Your task to perform on an android device: Open ESPN.com Image 0: 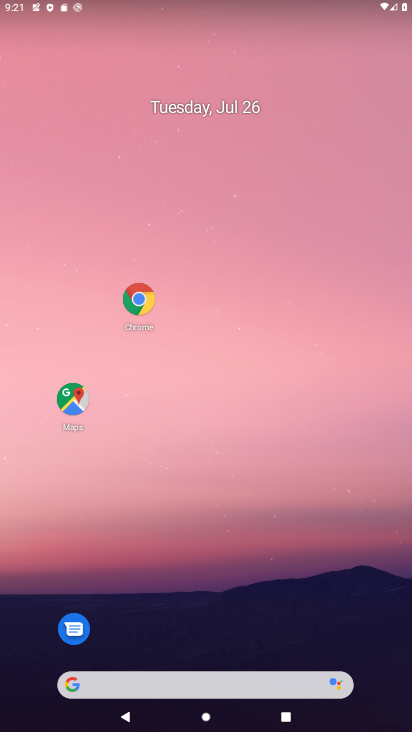
Step 0: press back button
Your task to perform on an android device: Open ESPN.com Image 1: 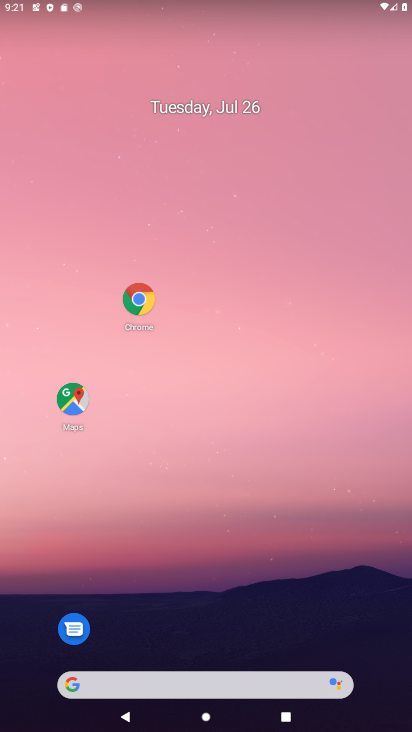
Step 1: click (173, 114)
Your task to perform on an android device: Open ESPN.com Image 2: 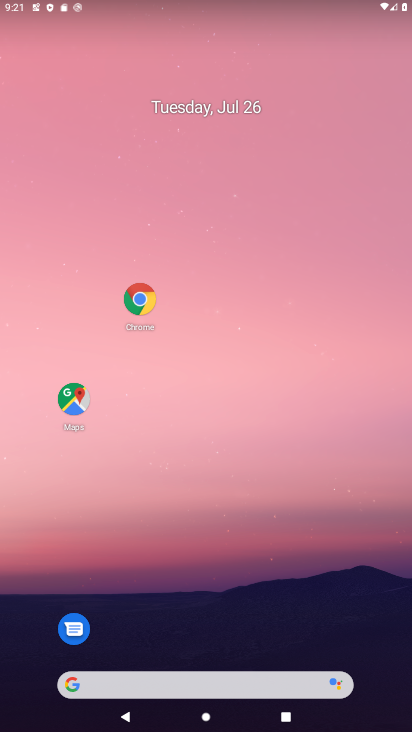
Step 2: drag from (133, 366) to (130, 179)
Your task to perform on an android device: Open ESPN.com Image 3: 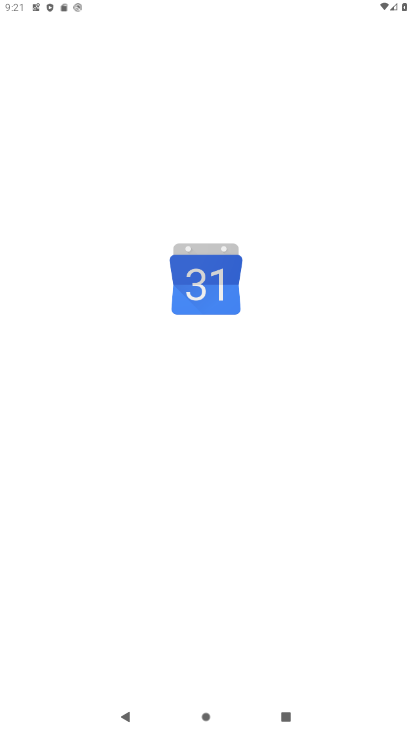
Step 3: drag from (268, 667) to (223, 116)
Your task to perform on an android device: Open ESPN.com Image 4: 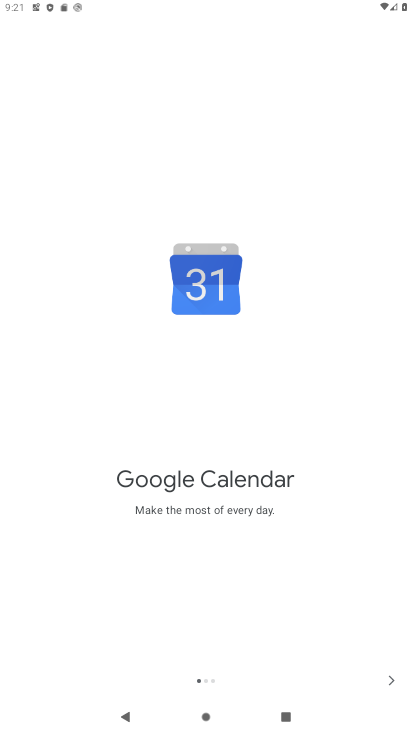
Step 4: press back button
Your task to perform on an android device: Open ESPN.com Image 5: 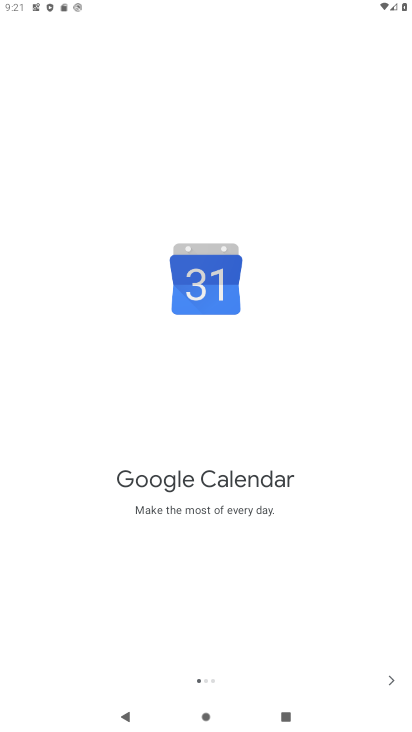
Step 5: press back button
Your task to perform on an android device: Open ESPN.com Image 6: 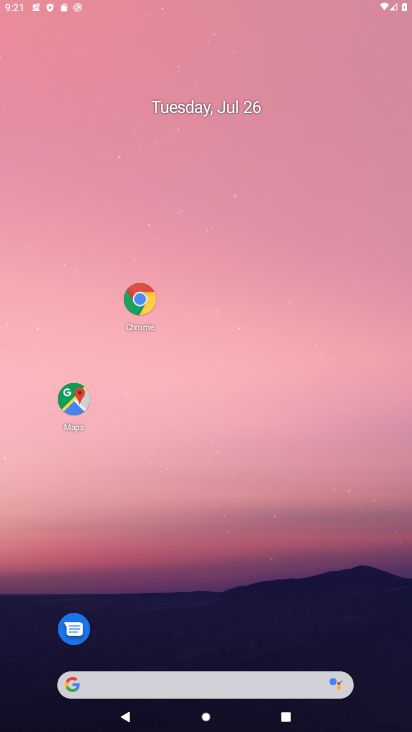
Step 6: press back button
Your task to perform on an android device: Open ESPN.com Image 7: 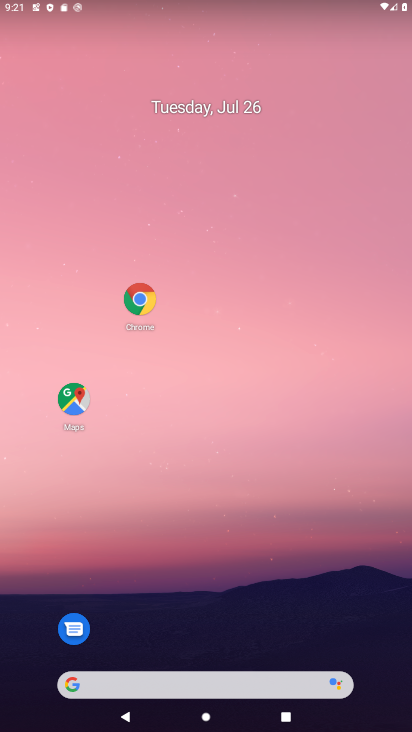
Step 7: drag from (207, 304) to (174, 142)
Your task to perform on an android device: Open ESPN.com Image 8: 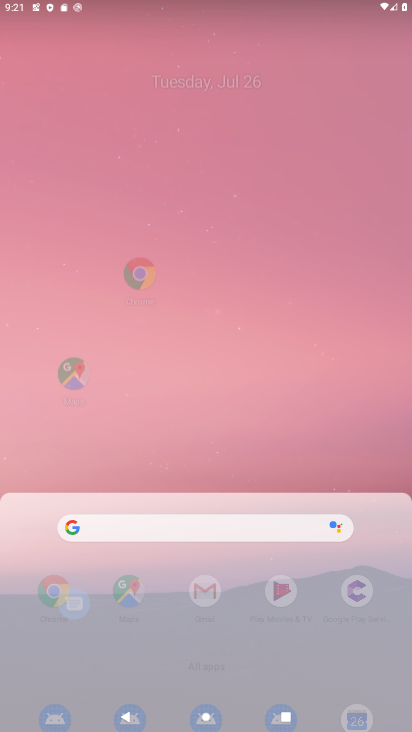
Step 8: drag from (146, 137) to (140, 100)
Your task to perform on an android device: Open ESPN.com Image 9: 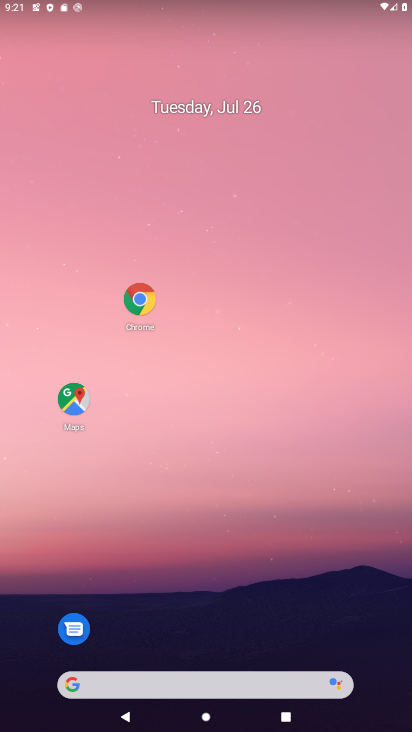
Step 9: drag from (203, 488) to (119, 102)
Your task to perform on an android device: Open ESPN.com Image 10: 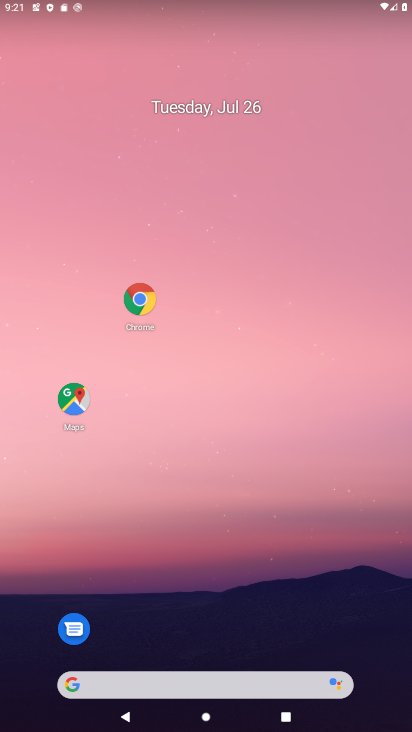
Step 10: drag from (181, 10) to (203, 75)
Your task to perform on an android device: Open ESPN.com Image 11: 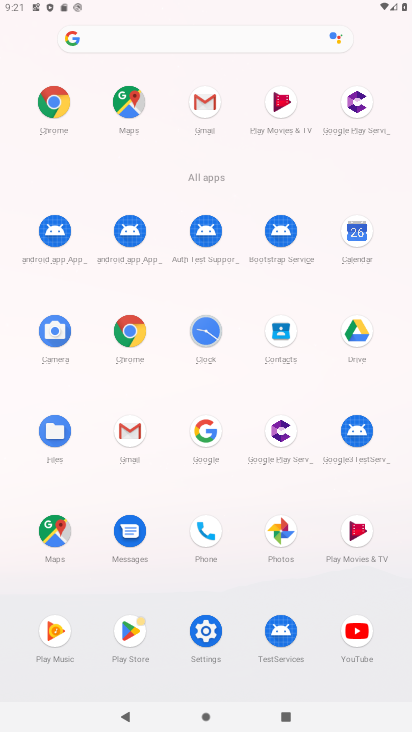
Step 11: click (345, 344)
Your task to perform on an android device: Open ESPN.com Image 12: 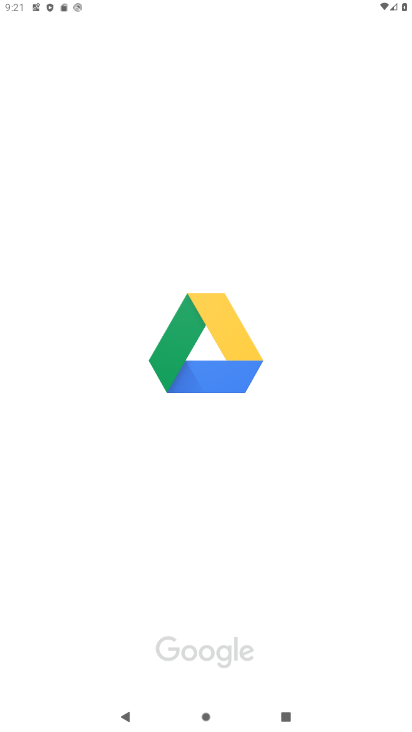
Step 12: click (131, 340)
Your task to perform on an android device: Open ESPN.com Image 13: 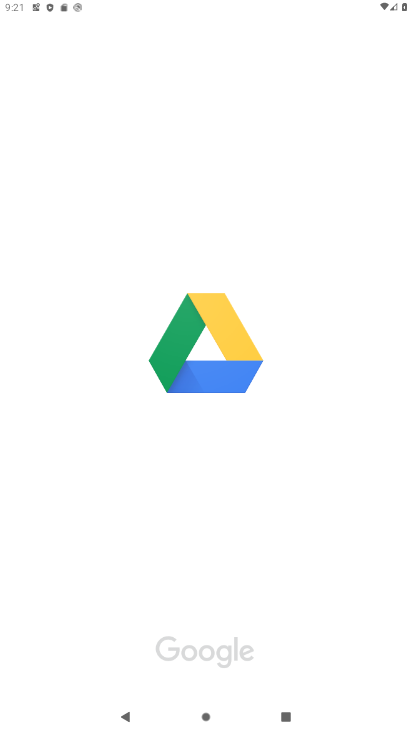
Step 13: click (131, 340)
Your task to perform on an android device: Open ESPN.com Image 14: 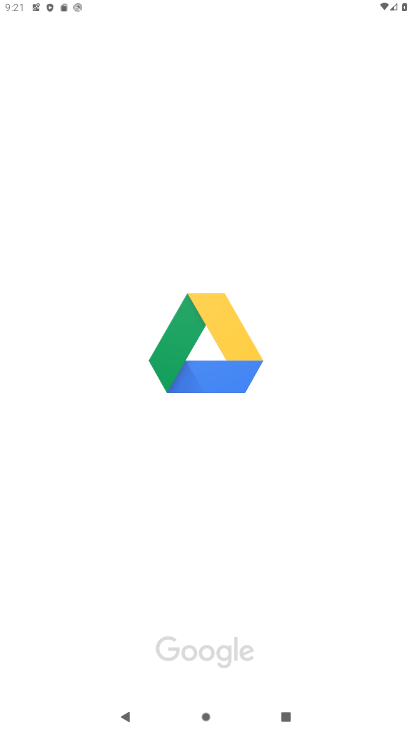
Step 14: press back button
Your task to perform on an android device: Open ESPN.com Image 15: 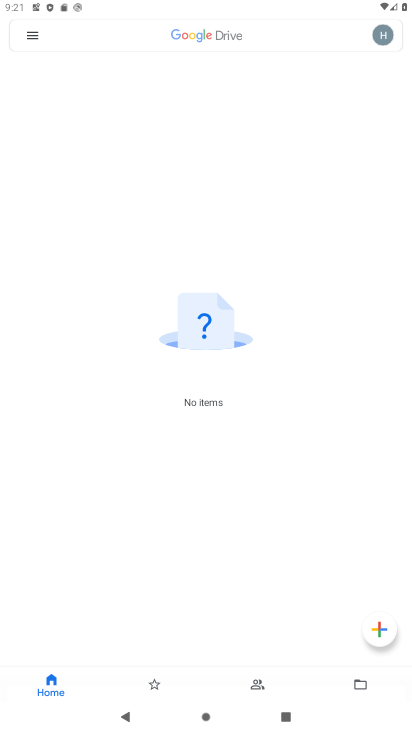
Step 15: press back button
Your task to perform on an android device: Open ESPN.com Image 16: 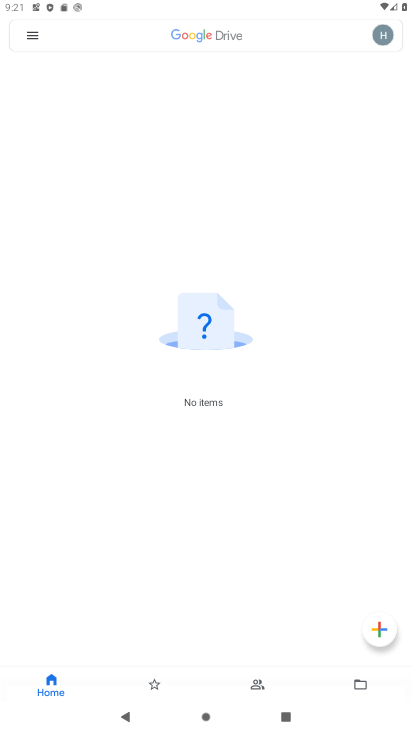
Step 16: click (54, 104)
Your task to perform on an android device: Open ESPN.com Image 17: 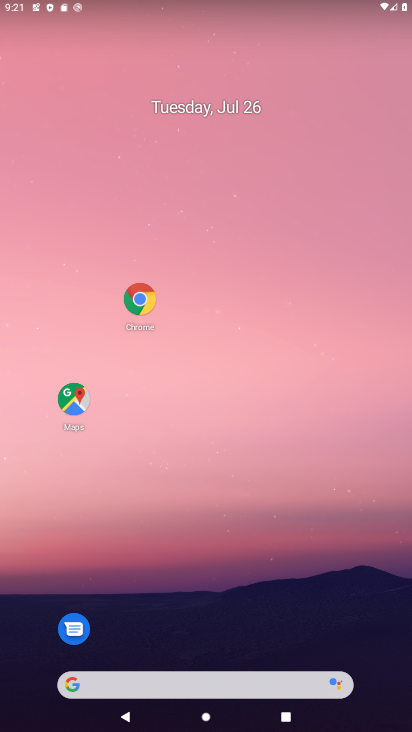
Step 17: press back button
Your task to perform on an android device: Open ESPN.com Image 18: 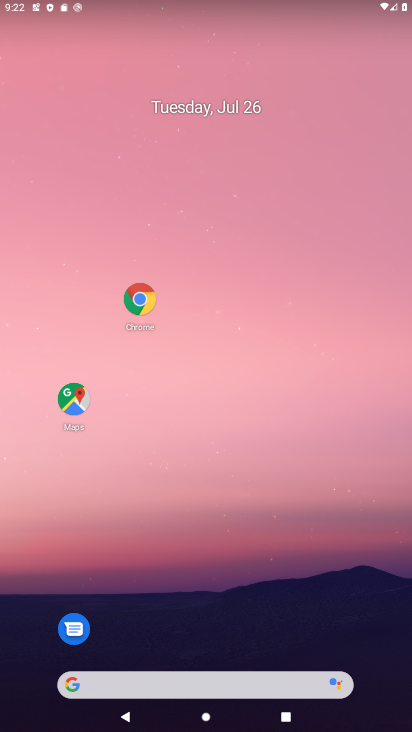
Step 18: click (171, 318)
Your task to perform on an android device: Open ESPN.com Image 19: 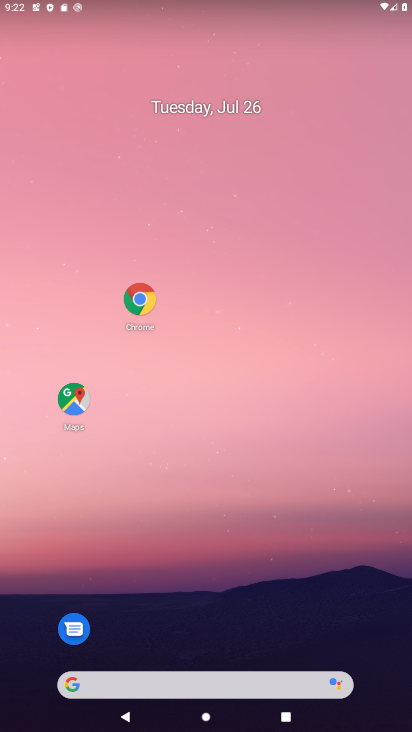
Step 19: drag from (223, 254) to (223, 119)
Your task to perform on an android device: Open ESPN.com Image 20: 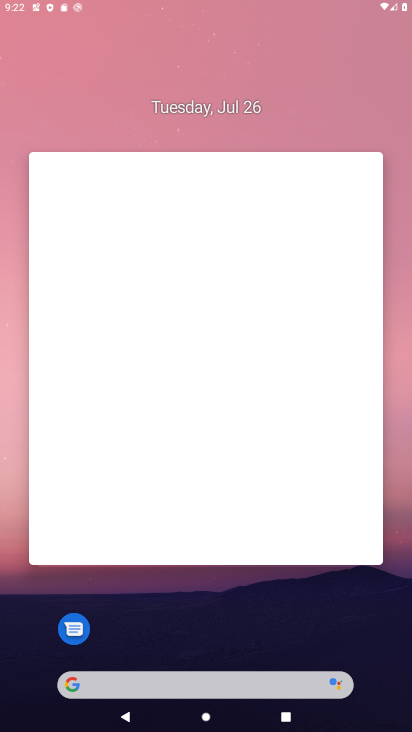
Step 20: click (241, 208)
Your task to perform on an android device: Open ESPN.com Image 21: 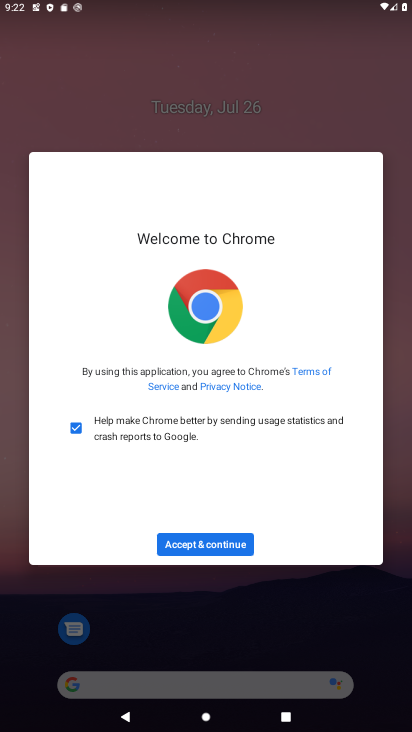
Step 21: click (213, 553)
Your task to perform on an android device: Open ESPN.com Image 22: 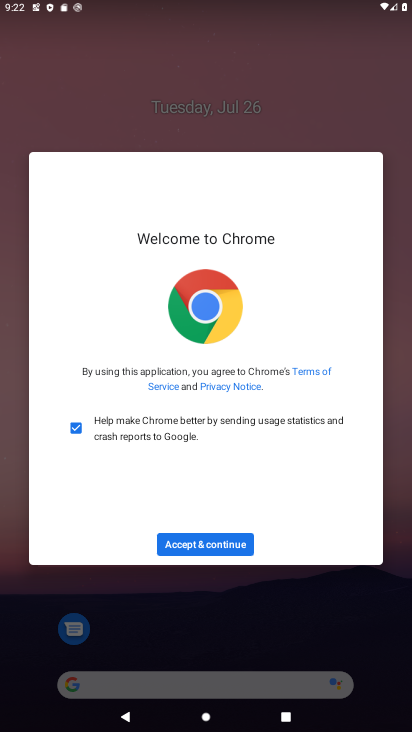
Step 22: click (213, 553)
Your task to perform on an android device: Open ESPN.com Image 23: 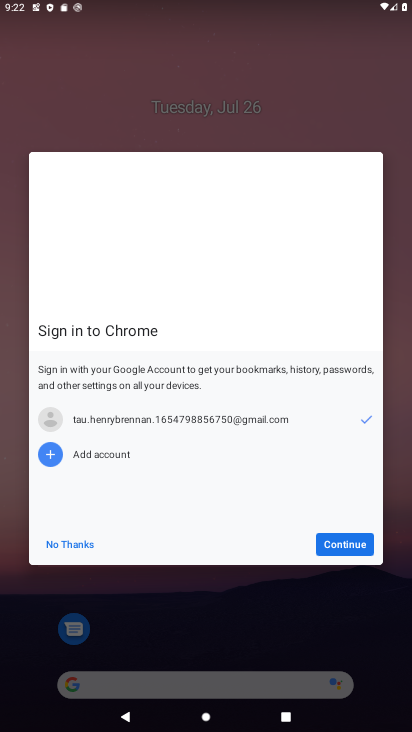
Step 23: click (46, 549)
Your task to perform on an android device: Open ESPN.com Image 24: 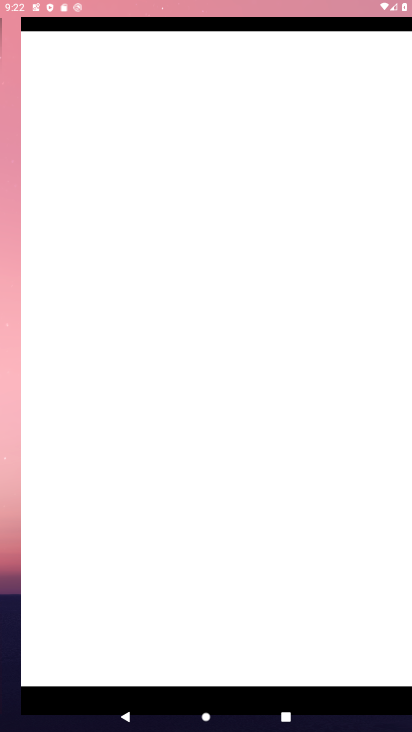
Step 24: click (49, 548)
Your task to perform on an android device: Open ESPN.com Image 25: 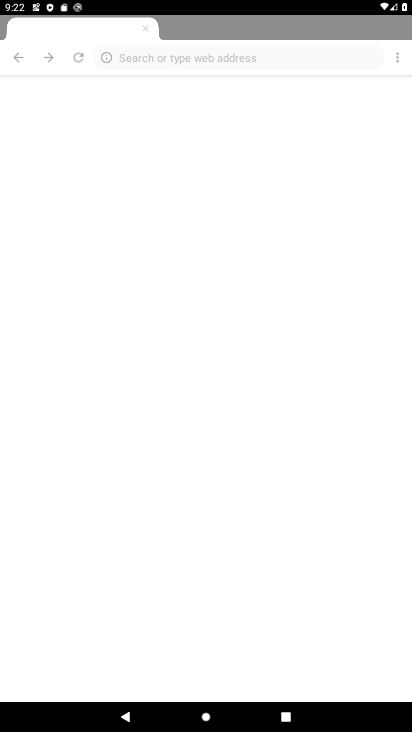
Step 25: click (60, 551)
Your task to perform on an android device: Open ESPN.com Image 26: 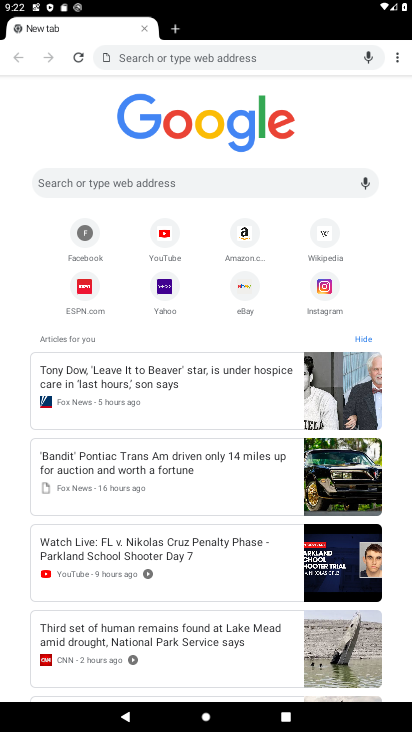
Step 26: click (80, 293)
Your task to perform on an android device: Open ESPN.com Image 27: 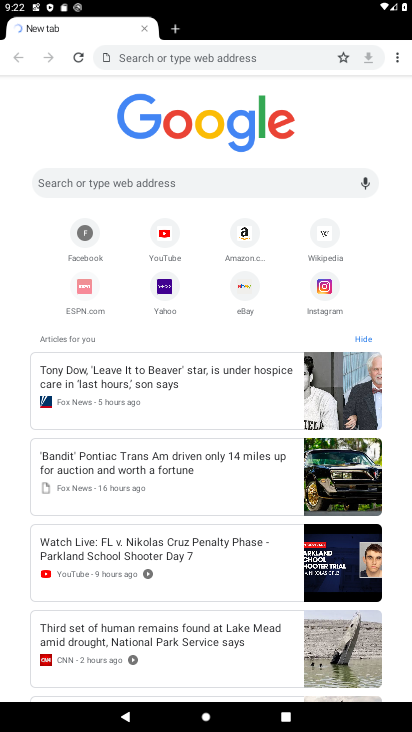
Step 27: click (82, 290)
Your task to perform on an android device: Open ESPN.com Image 28: 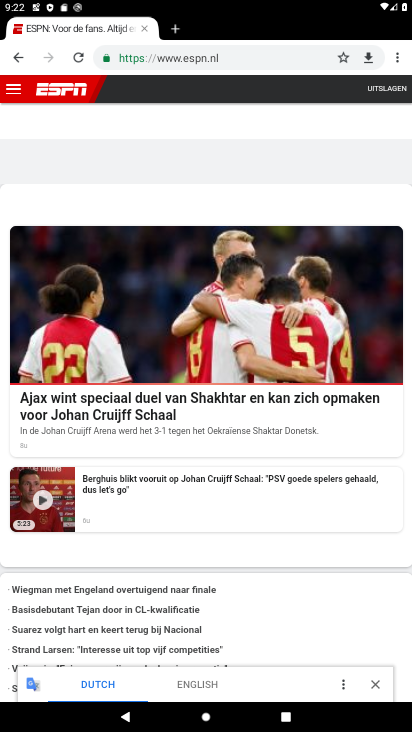
Step 28: task complete